Your task to perform on an android device: turn off airplane mode Image 0: 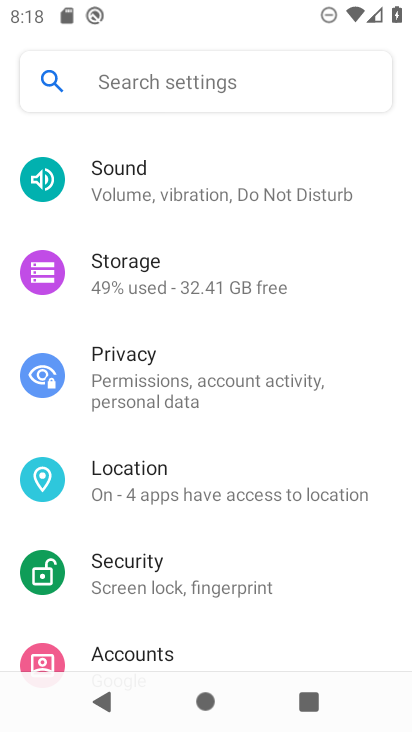
Step 0: drag from (226, 260) to (224, 598)
Your task to perform on an android device: turn off airplane mode Image 1: 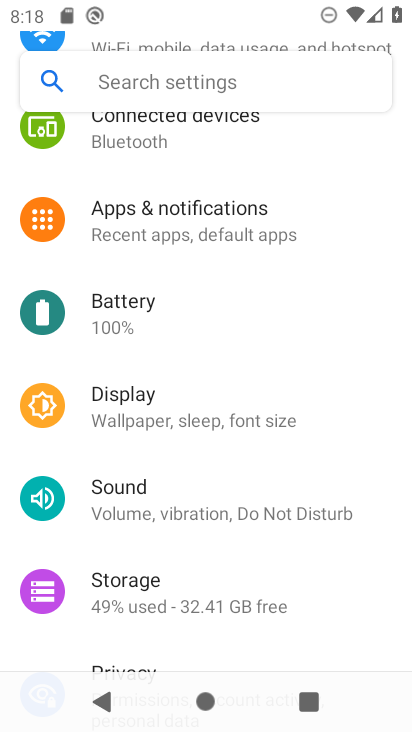
Step 1: drag from (211, 307) to (193, 583)
Your task to perform on an android device: turn off airplane mode Image 2: 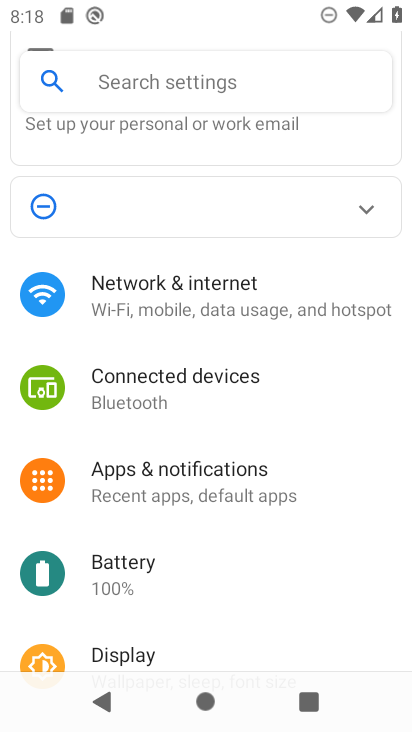
Step 2: click (234, 310)
Your task to perform on an android device: turn off airplane mode Image 3: 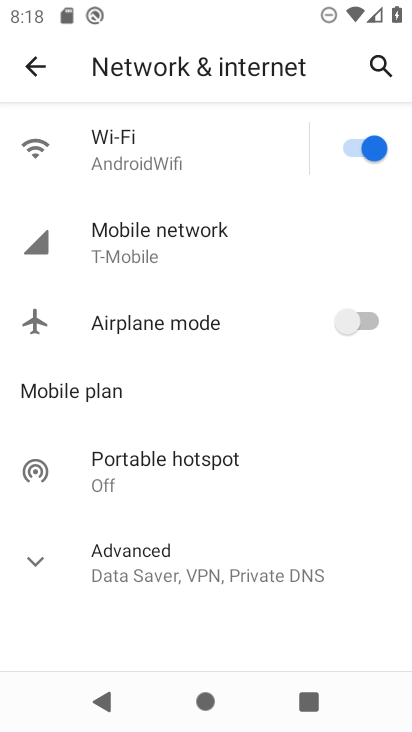
Step 3: task complete